Your task to perform on an android device: add a contact in the contacts app Image 0: 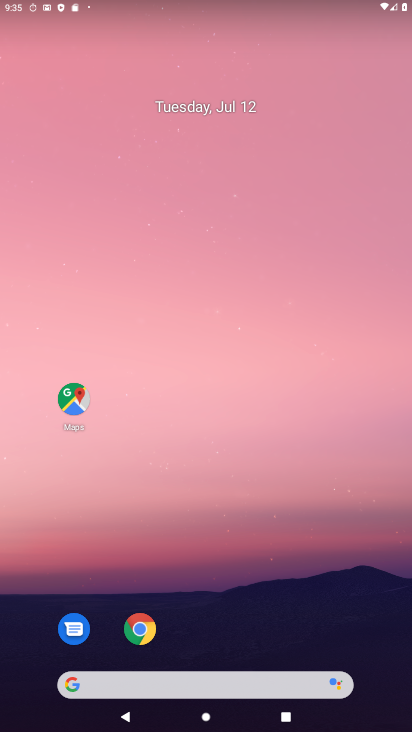
Step 0: drag from (289, 550) to (264, 51)
Your task to perform on an android device: add a contact in the contacts app Image 1: 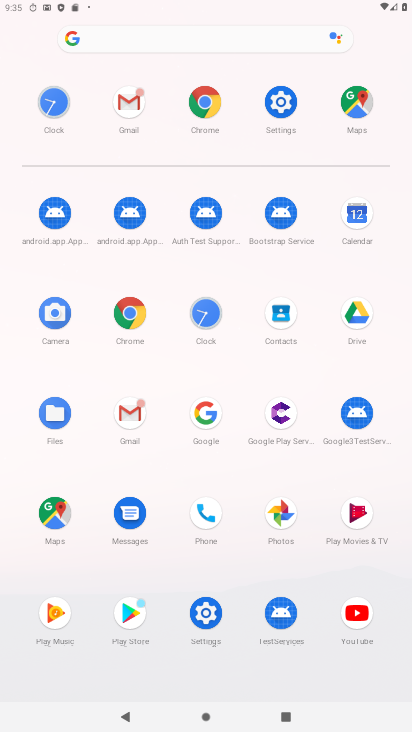
Step 1: click (290, 314)
Your task to perform on an android device: add a contact in the contacts app Image 2: 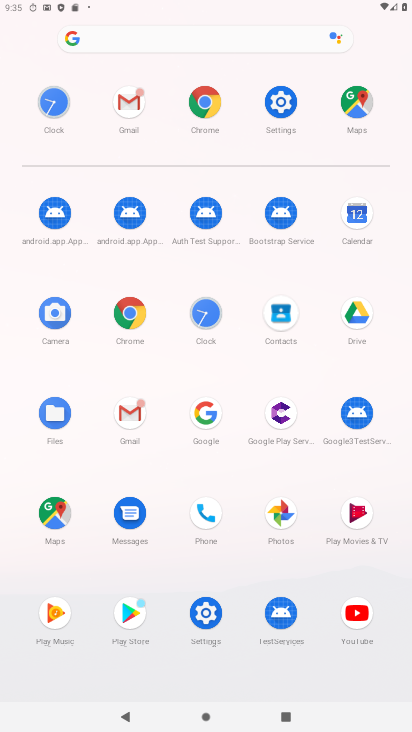
Step 2: click (288, 308)
Your task to perform on an android device: add a contact in the contacts app Image 3: 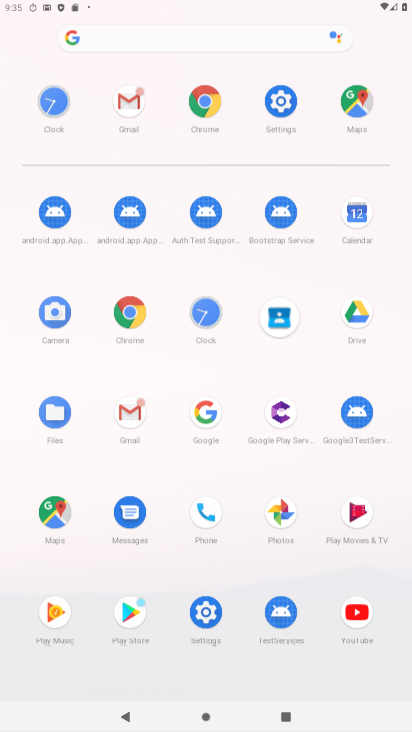
Step 3: click (288, 308)
Your task to perform on an android device: add a contact in the contacts app Image 4: 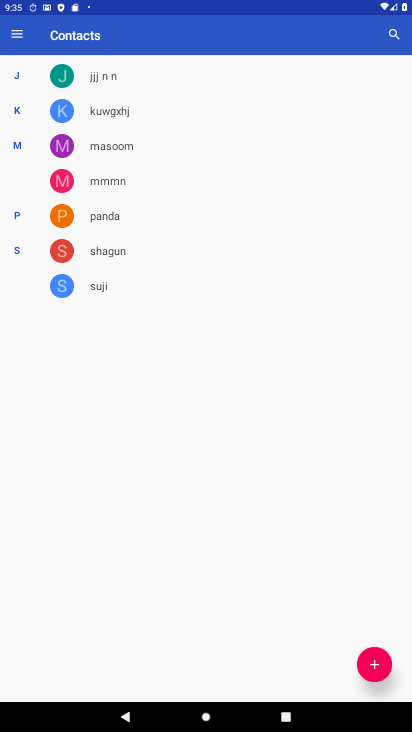
Step 4: click (290, 309)
Your task to perform on an android device: add a contact in the contacts app Image 5: 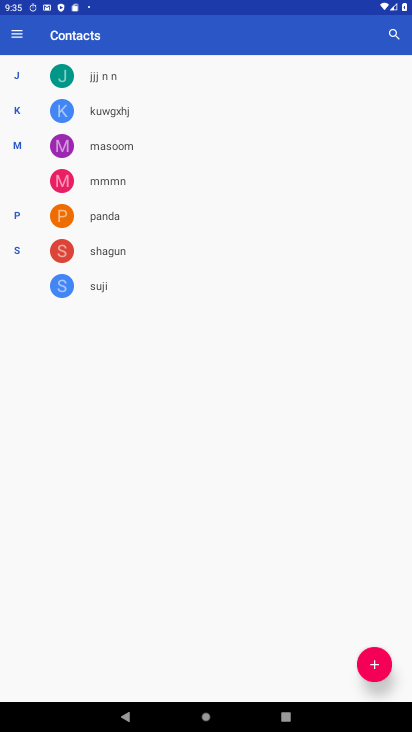
Step 5: click (353, 662)
Your task to perform on an android device: add a contact in the contacts app Image 6: 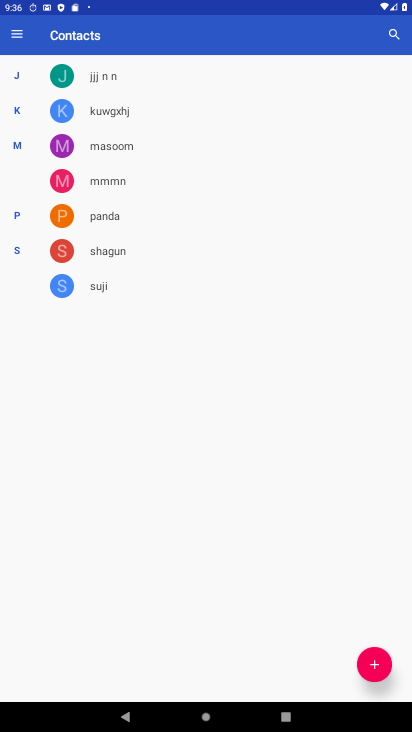
Step 6: click (366, 665)
Your task to perform on an android device: add a contact in the contacts app Image 7: 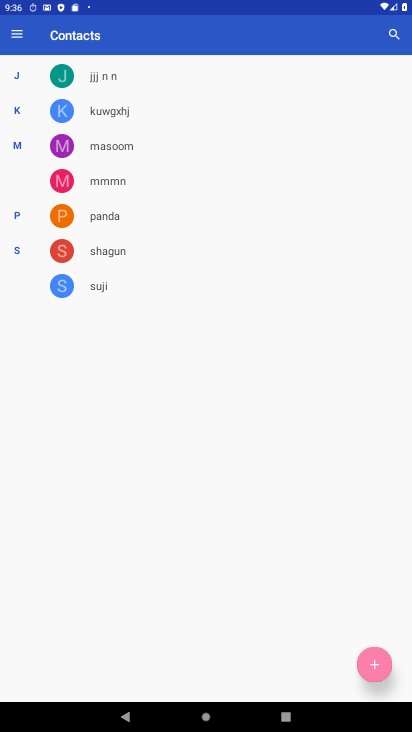
Step 7: click (370, 665)
Your task to perform on an android device: add a contact in the contacts app Image 8: 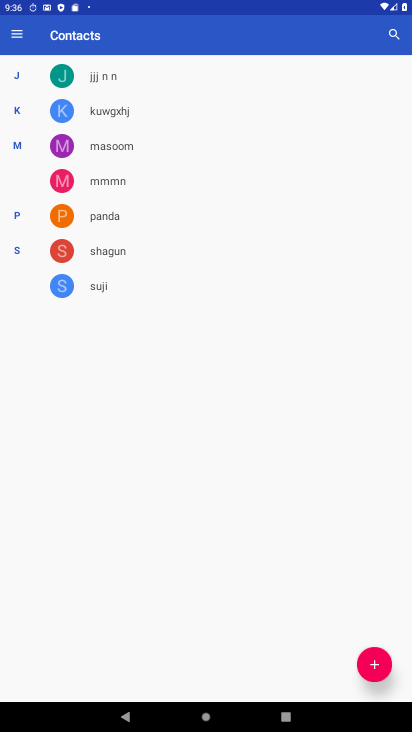
Step 8: click (370, 665)
Your task to perform on an android device: add a contact in the contacts app Image 9: 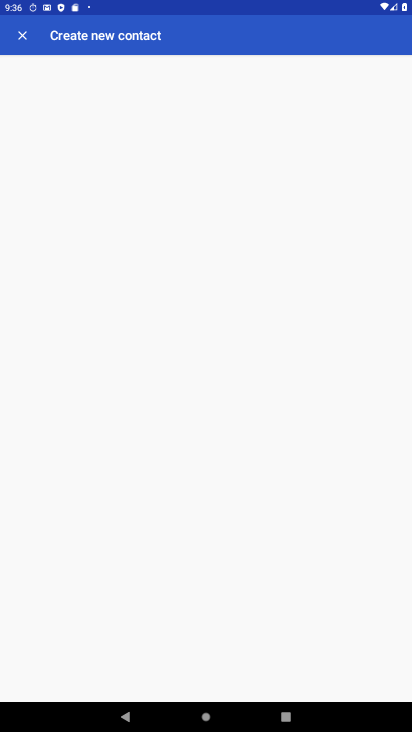
Step 9: click (373, 660)
Your task to perform on an android device: add a contact in the contacts app Image 10: 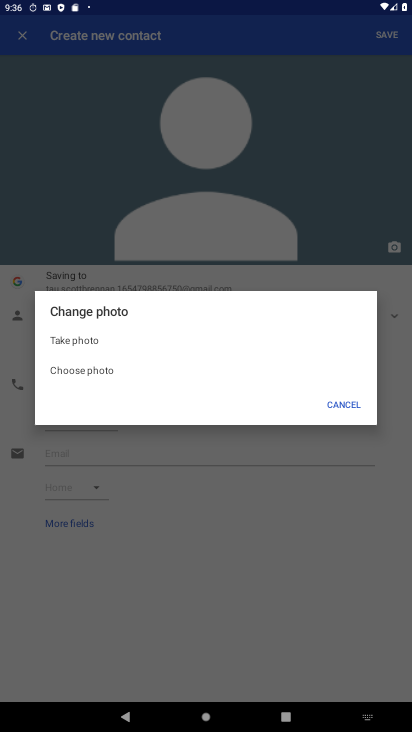
Step 10: click (370, 410)
Your task to perform on an android device: add a contact in the contacts app Image 11: 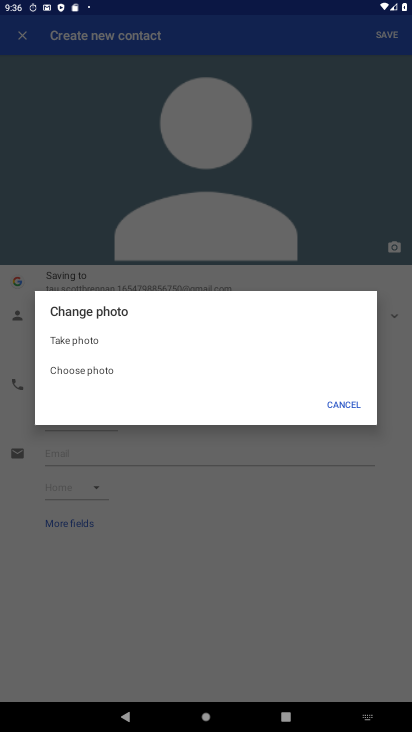
Step 11: click (351, 399)
Your task to perform on an android device: add a contact in the contacts app Image 12: 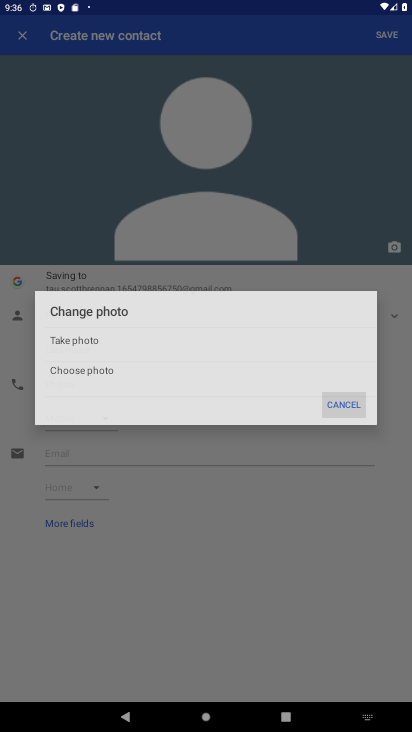
Step 12: click (351, 399)
Your task to perform on an android device: add a contact in the contacts app Image 13: 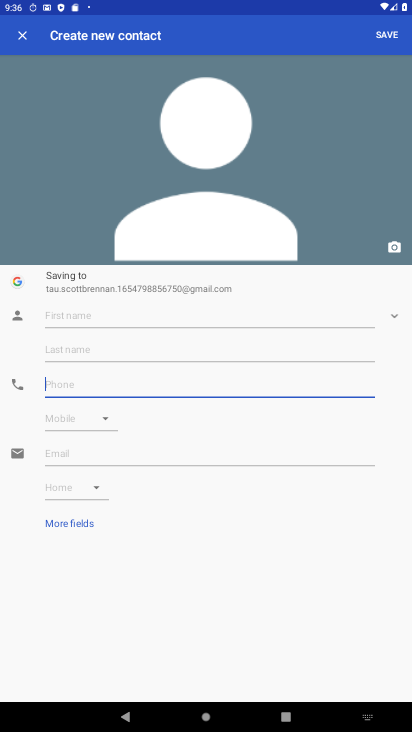
Step 13: click (351, 399)
Your task to perform on an android device: add a contact in the contacts app Image 14: 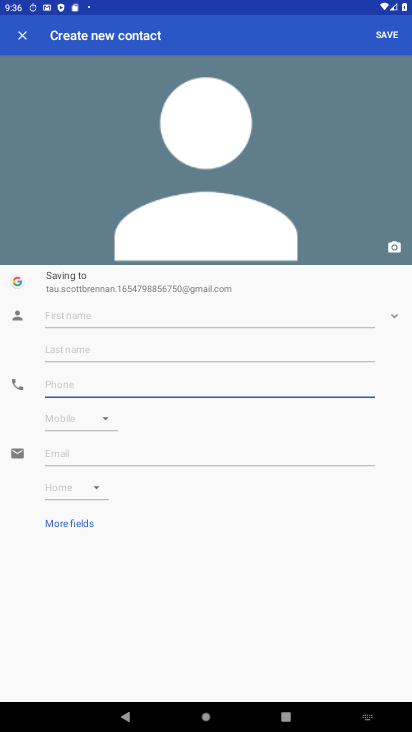
Step 14: click (67, 306)
Your task to perform on an android device: add a contact in the contacts app Image 15: 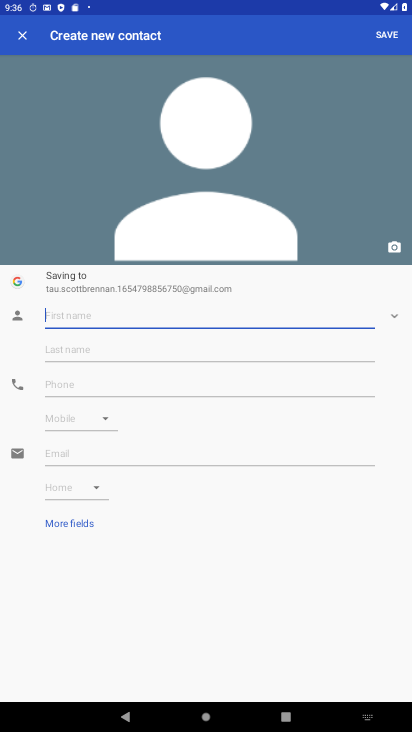
Step 15: click (66, 307)
Your task to perform on an android device: add a contact in the contacts app Image 16: 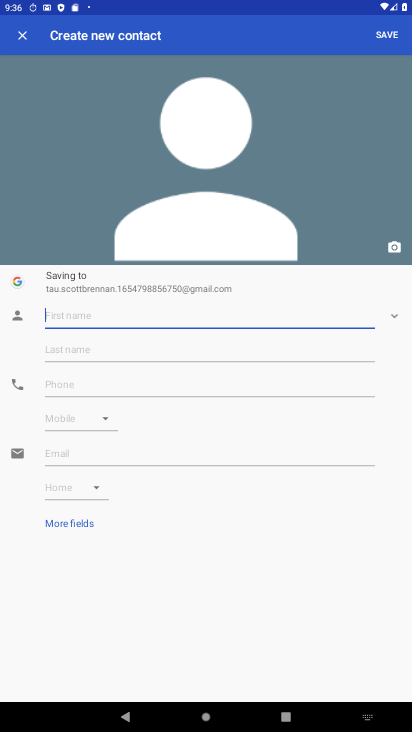
Step 16: type "vcvcjhhasbjka"
Your task to perform on an android device: add a contact in the contacts app Image 17: 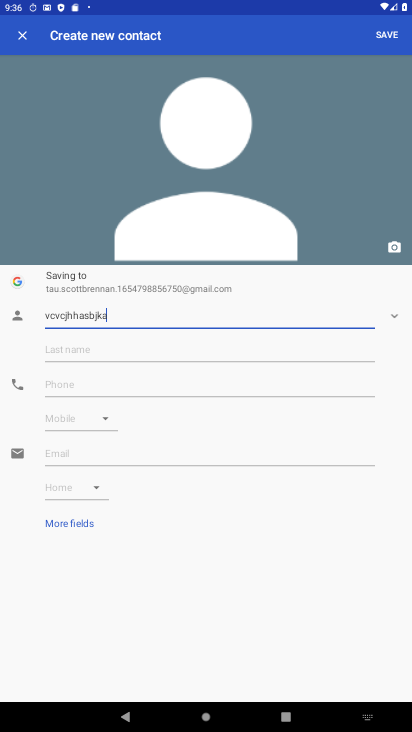
Step 17: click (61, 381)
Your task to perform on an android device: add a contact in the contacts app Image 18: 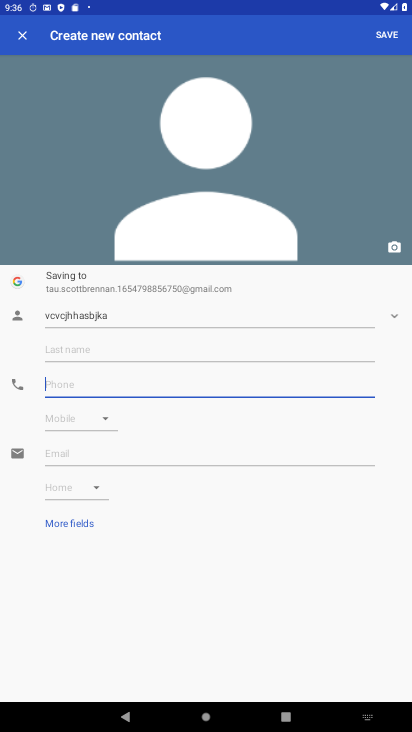
Step 18: type "697975592337582"
Your task to perform on an android device: add a contact in the contacts app Image 19: 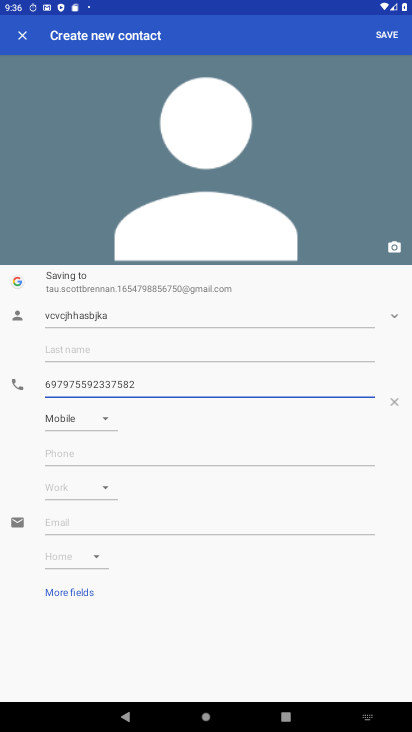
Step 19: click (389, 42)
Your task to perform on an android device: add a contact in the contacts app Image 20: 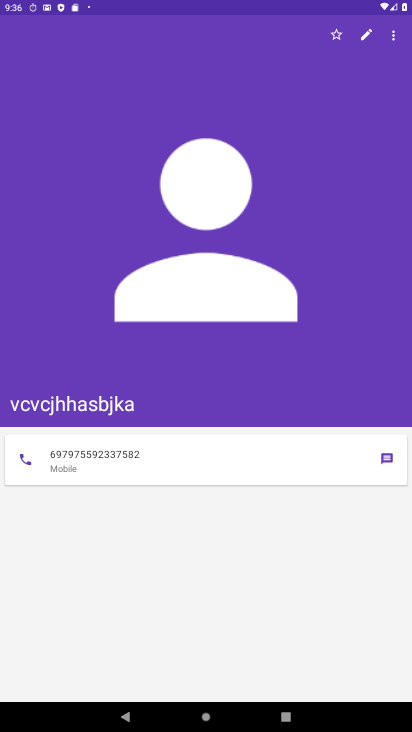
Step 20: task complete